Your task to perform on an android device: Open the calendar app, open the side menu, and click the "Day" option Image 0: 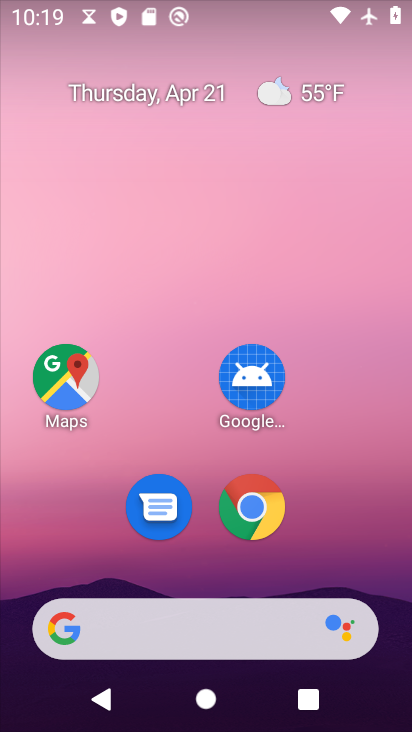
Step 0: drag from (320, 582) to (303, 167)
Your task to perform on an android device: Open the calendar app, open the side menu, and click the "Day" option Image 1: 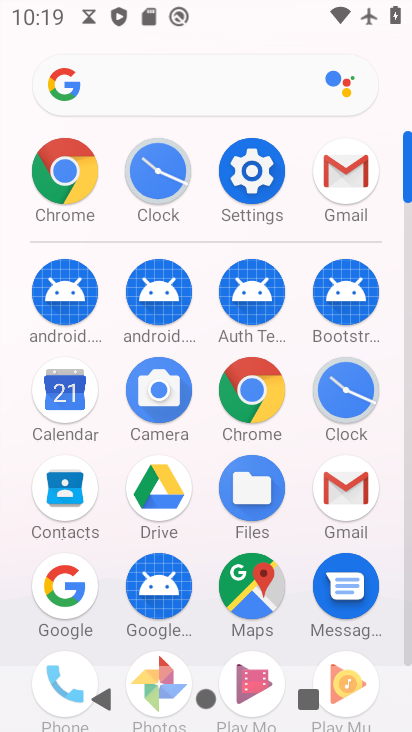
Step 1: drag from (207, 608) to (210, 317)
Your task to perform on an android device: Open the calendar app, open the side menu, and click the "Day" option Image 2: 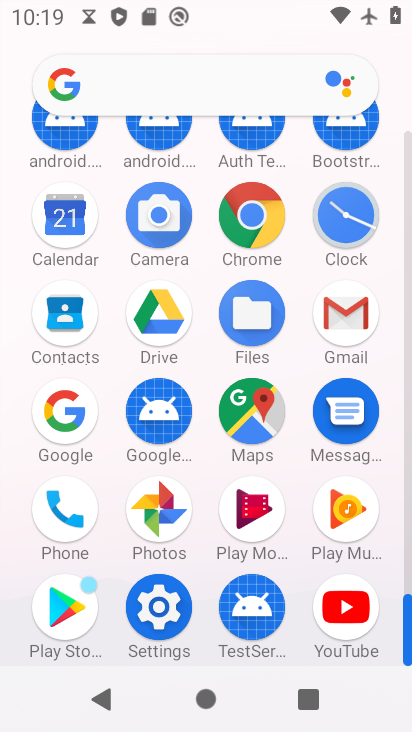
Step 2: click (64, 215)
Your task to perform on an android device: Open the calendar app, open the side menu, and click the "Day" option Image 3: 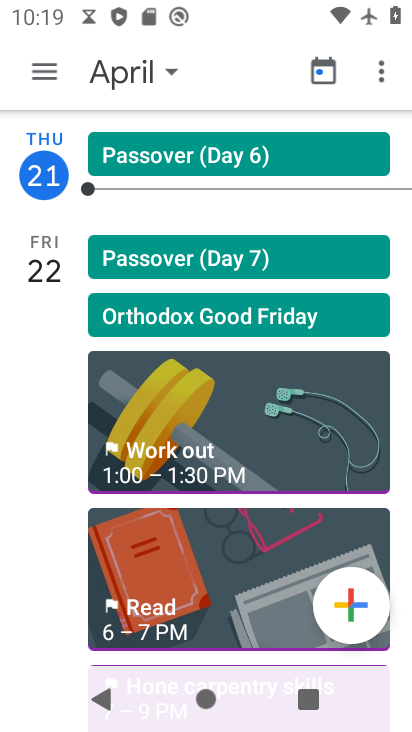
Step 3: click (34, 69)
Your task to perform on an android device: Open the calendar app, open the side menu, and click the "Day" option Image 4: 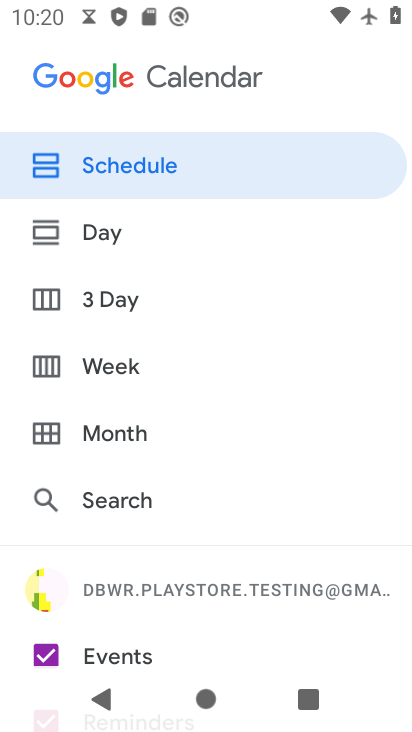
Step 4: click (203, 625)
Your task to perform on an android device: Open the calendar app, open the side menu, and click the "Day" option Image 5: 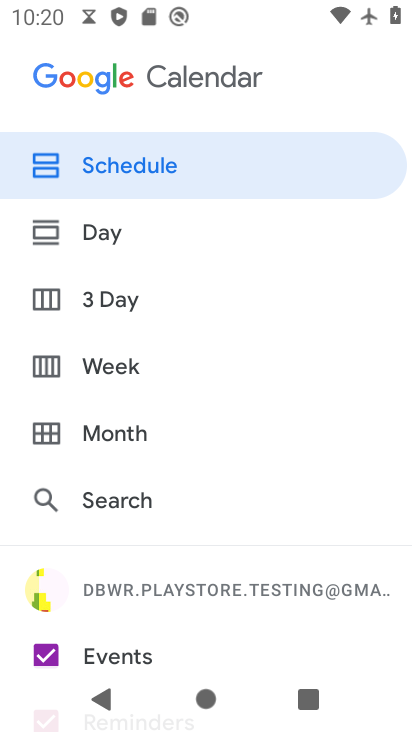
Step 5: click (117, 230)
Your task to perform on an android device: Open the calendar app, open the side menu, and click the "Day" option Image 6: 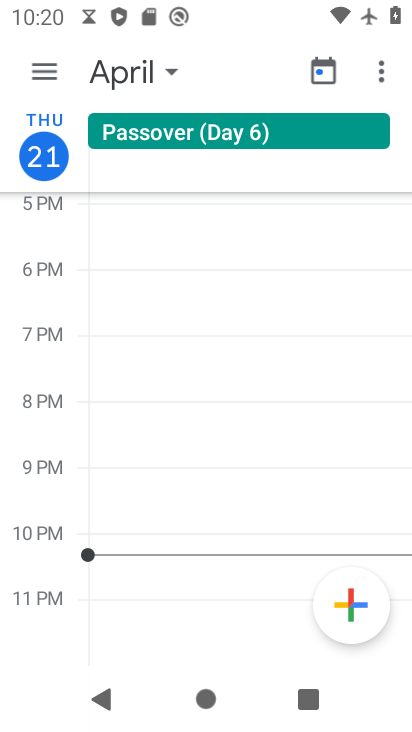
Step 6: task complete